Your task to perform on an android device: Check the news Image 0: 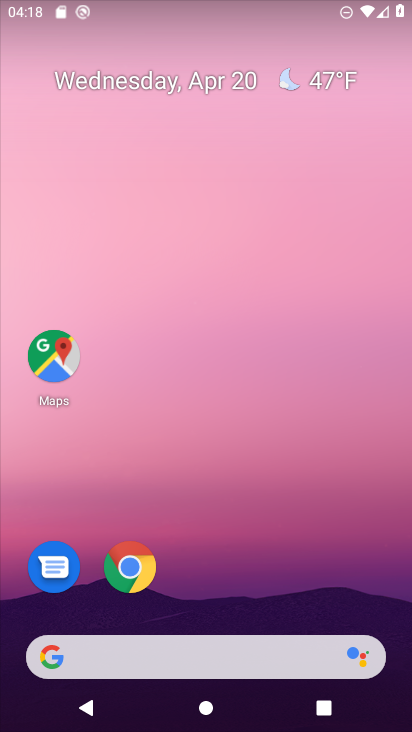
Step 0: click (204, 664)
Your task to perform on an android device: Check the news Image 1: 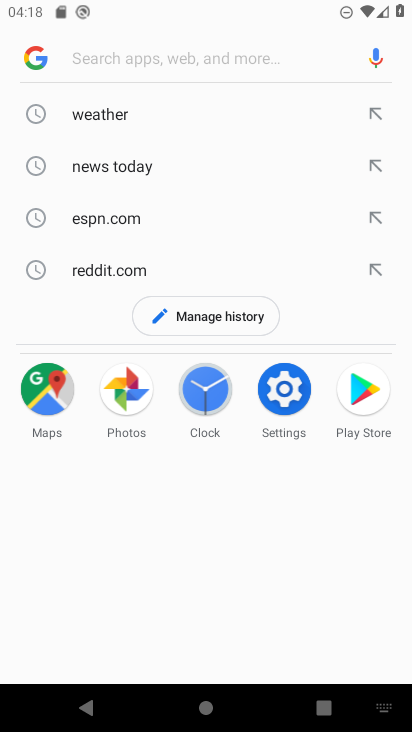
Step 1: click (31, 53)
Your task to perform on an android device: Check the news Image 2: 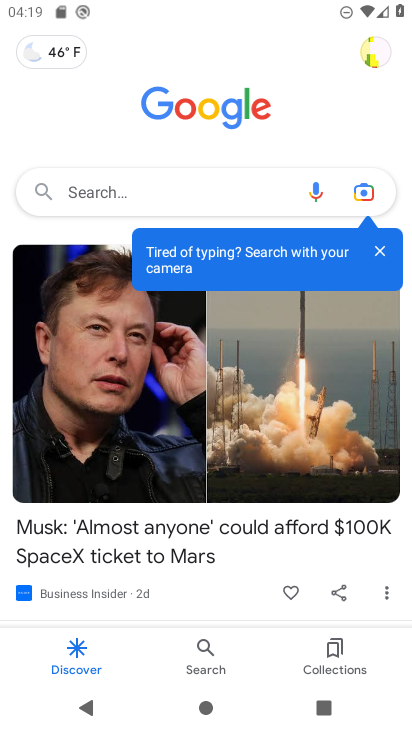
Step 2: task complete